Your task to perform on an android device: Open settings Image 0: 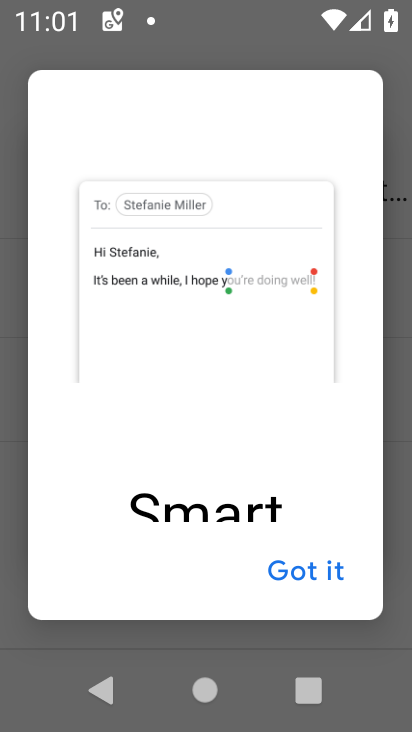
Step 0: press home button
Your task to perform on an android device: Open settings Image 1: 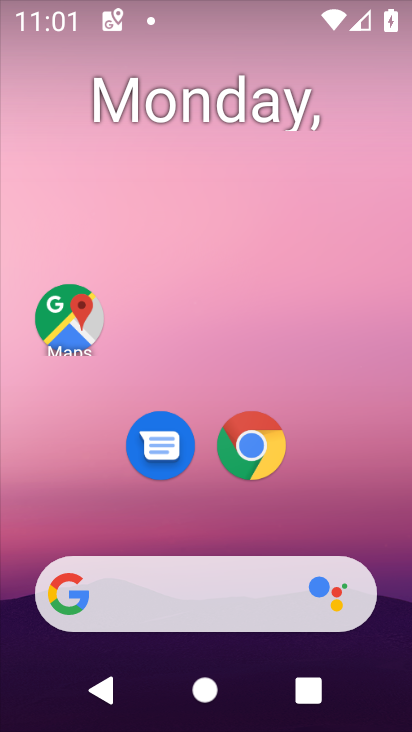
Step 1: drag from (246, 704) to (348, 7)
Your task to perform on an android device: Open settings Image 2: 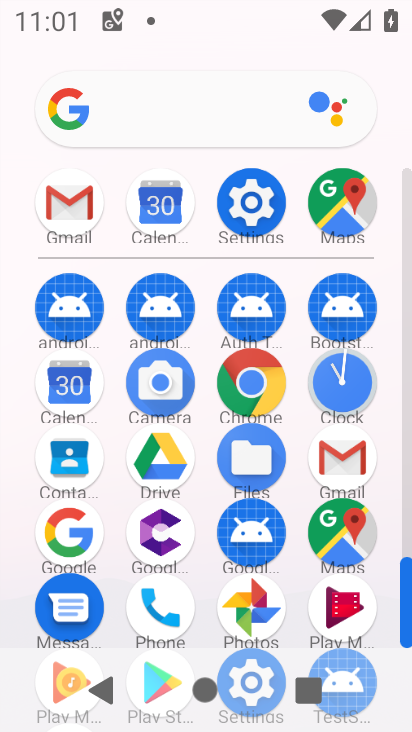
Step 2: click (258, 203)
Your task to perform on an android device: Open settings Image 3: 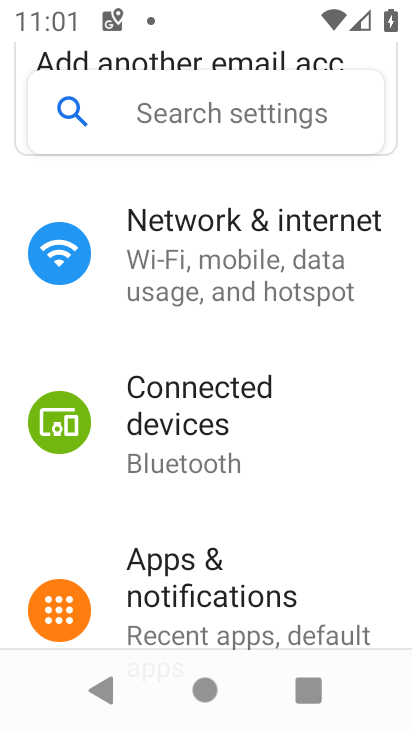
Step 3: task complete